Your task to perform on an android device: Show me recent news Image 0: 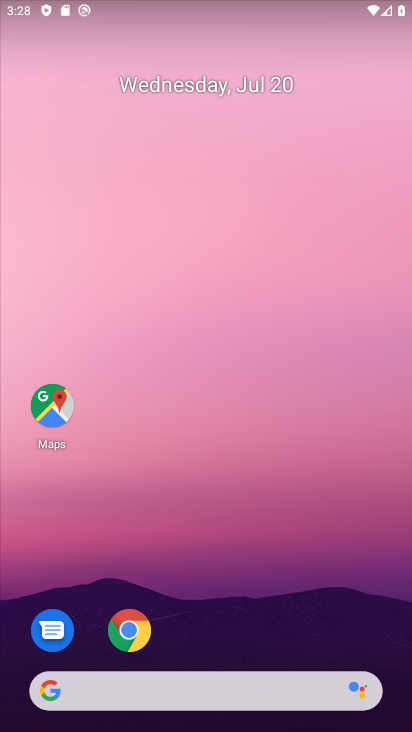
Step 0: press home button
Your task to perform on an android device: Show me recent news Image 1: 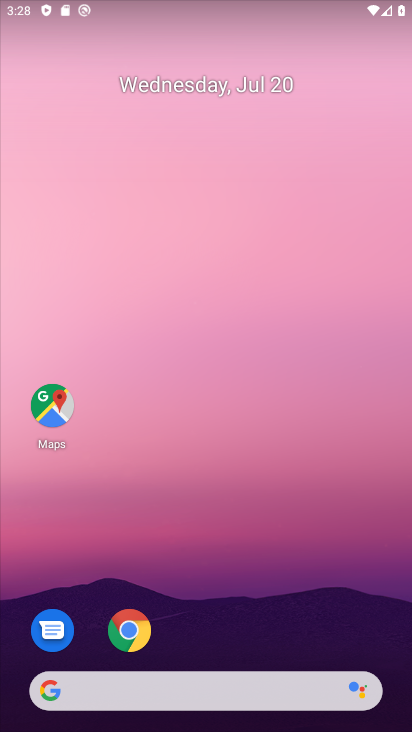
Step 1: click (44, 687)
Your task to perform on an android device: Show me recent news Image 2: 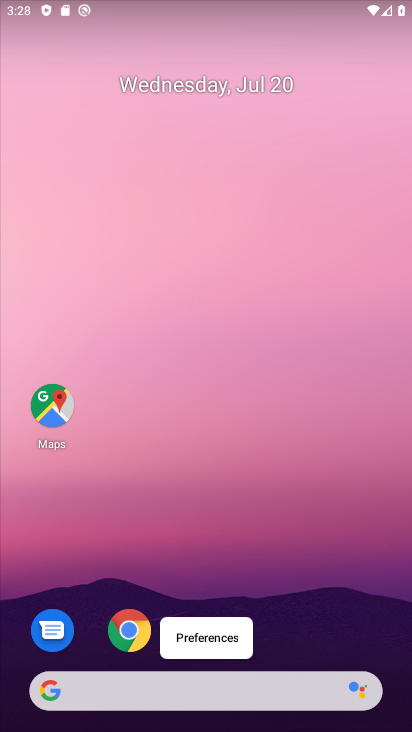
Step 2: click (42, 691)
Your task to perform on an android device: Show me recent news Image 3: 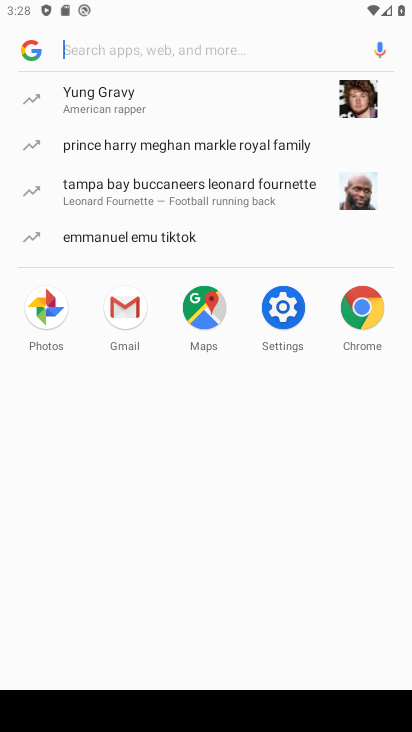
Step 3: type "recent news"
Your task to perform on an android device: Show me recent news Image 4: 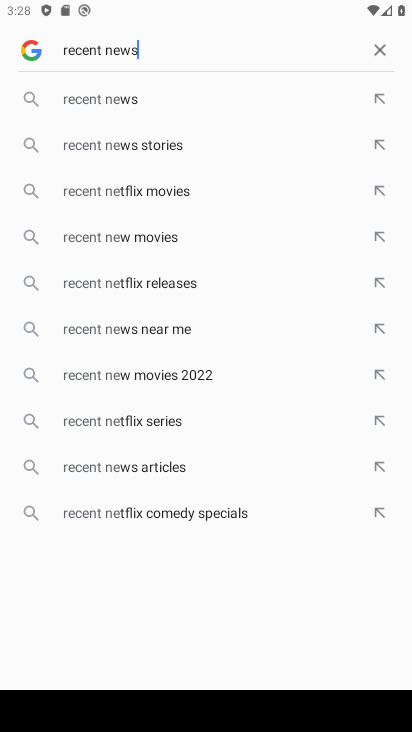
Step 4: press enter
Your task to perform on an android device: Show me recent news Image 5: 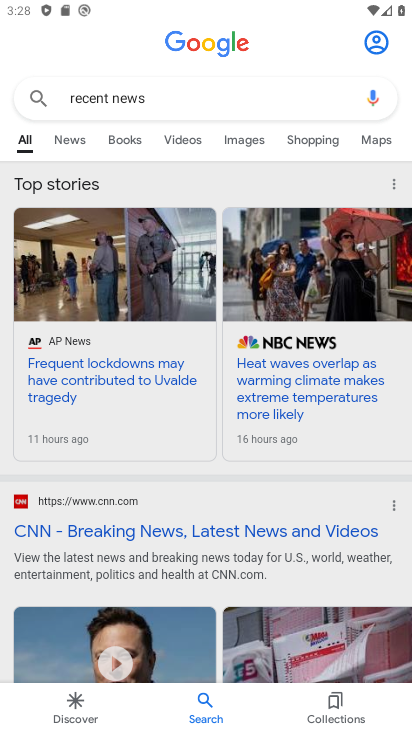
Step 5: task complete